Your task to perform on an android device: check out phone information Image 0: 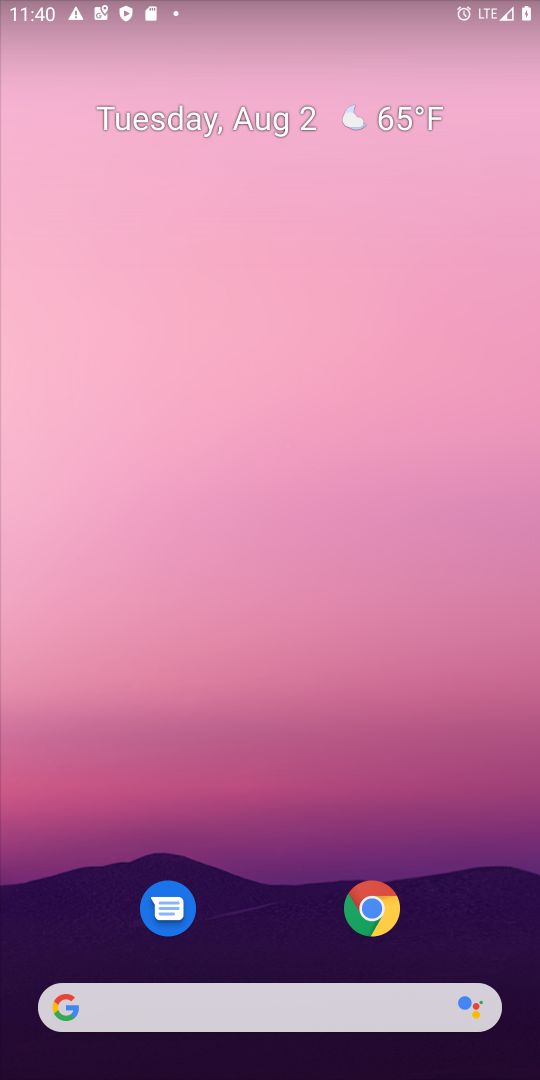
Step 0: drag from (329, 583) to (431, 24)
Your task to perform on an android device: check out phone information Image 1: 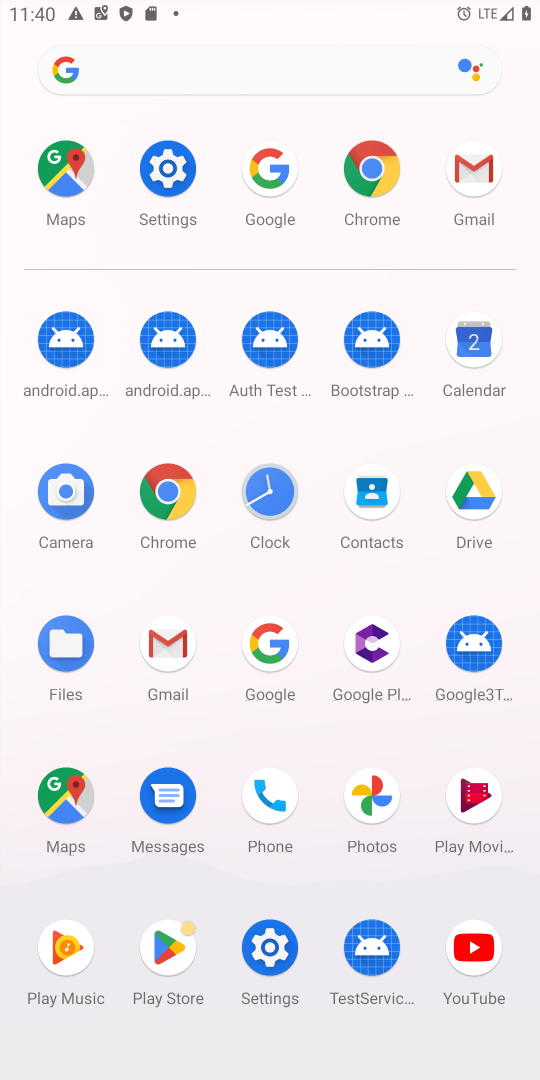
Step 1: drag from (318, 257) to (327, 13)
Your task to perform on an android device: check out phone information Image 2: 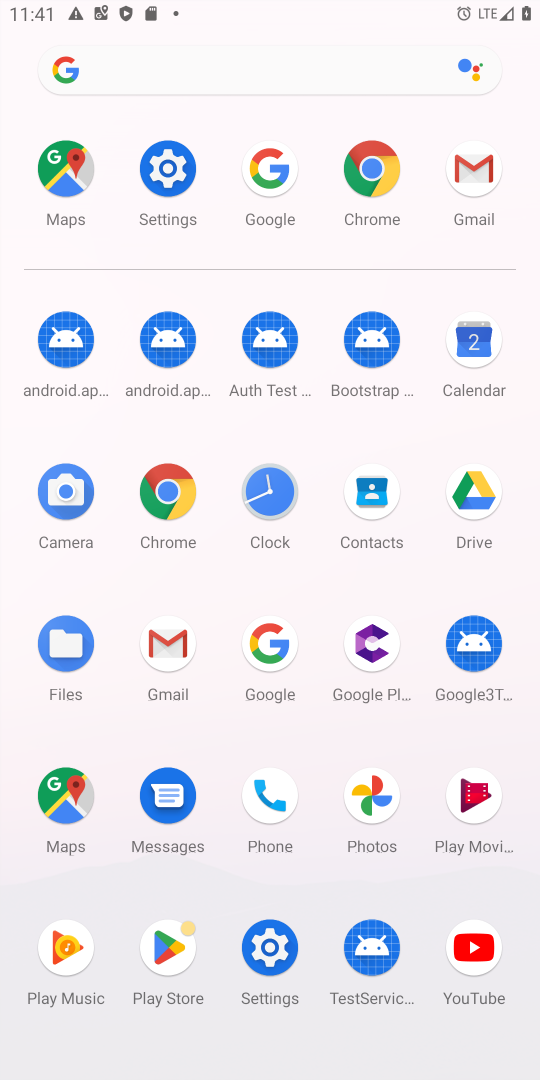
Step 2: click (279, 951)
Your task to perform on an android device: check out phone information Image 3: 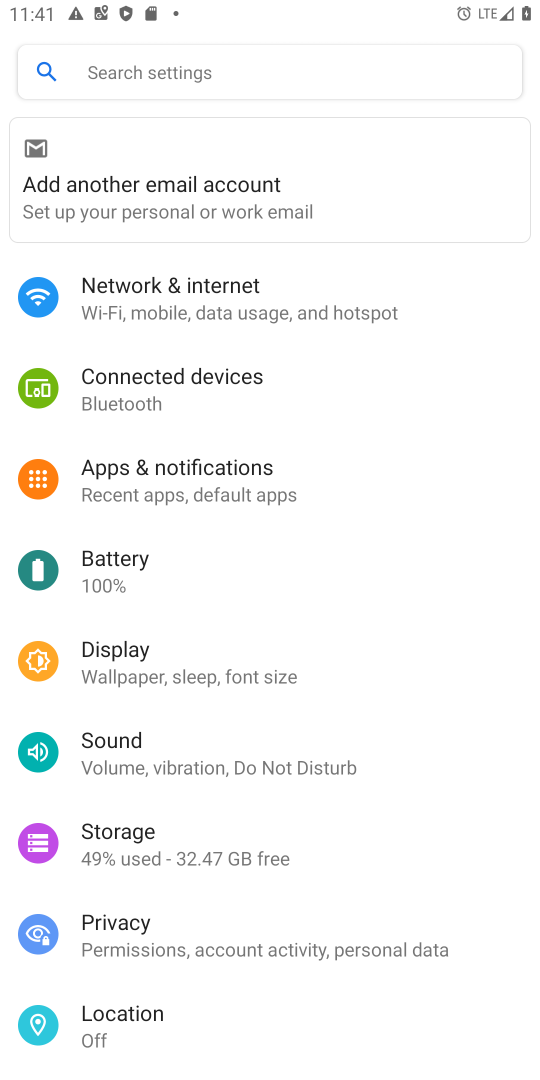
Step 3: drag from (254, 932) to (288, 117)
Your task to perform on an android device: check out phone information Image 4: 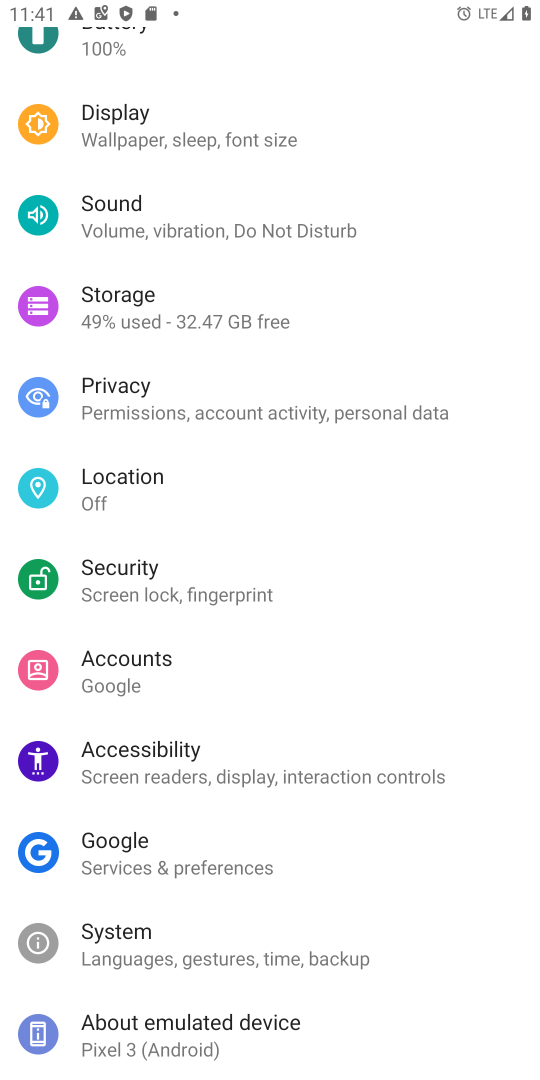
Step 4: click (242, 1037)
Your task to perform on an android device: check out phone information Image 5: 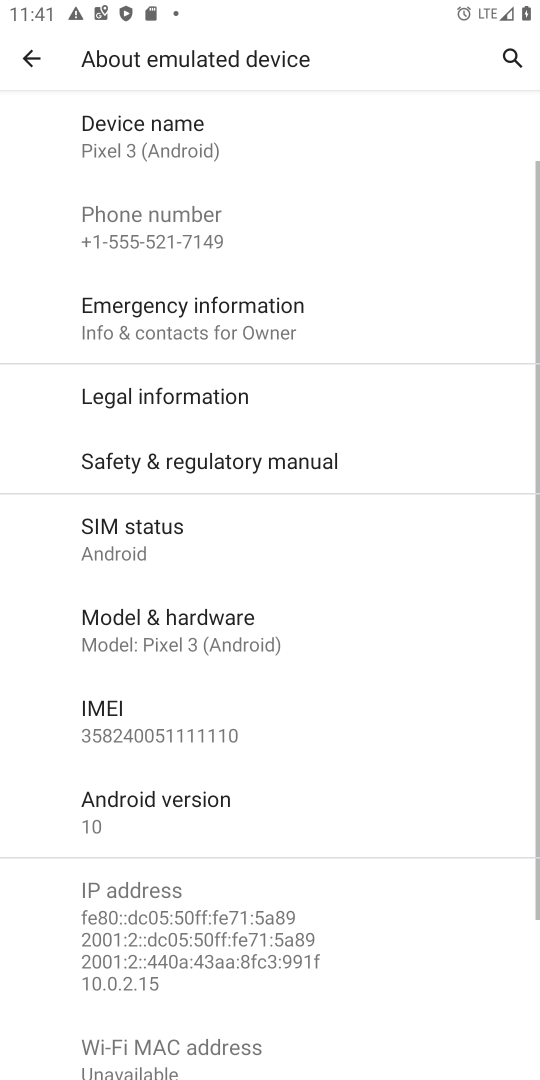
Step 5: task complete